Your task to perform on an android device: visit the assistant section in the google photos Image 0: 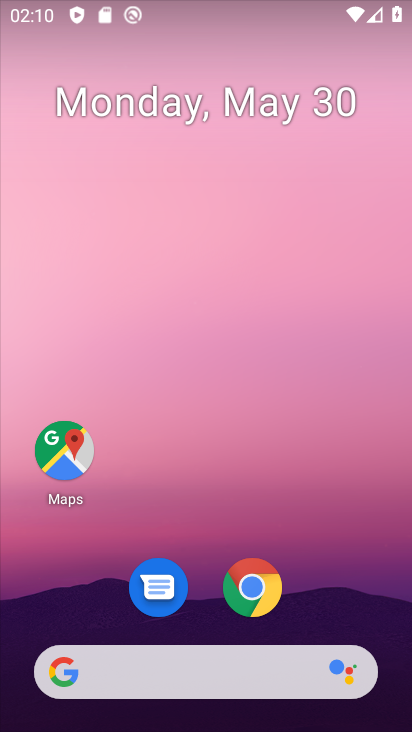
Step 0: drag from (144, 724) to (293, 36)
Your task to perform on an android device: visit the assistant section in the google photos Image 1: 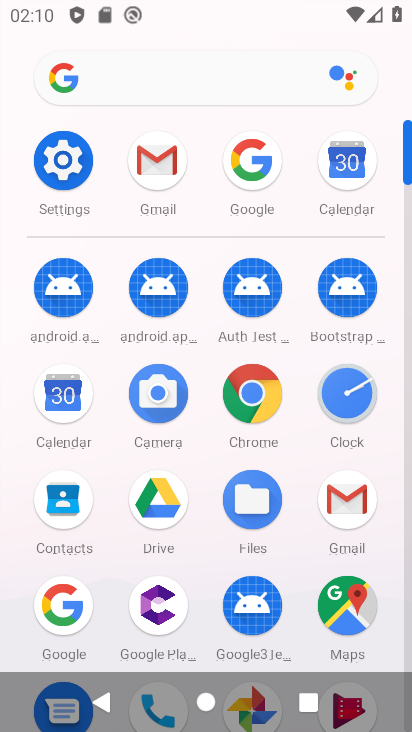
Step 1: drag from (229, 413) to (224, 75)
Your task to perform on an android device: visit the assistant section in the google photos Image 2: 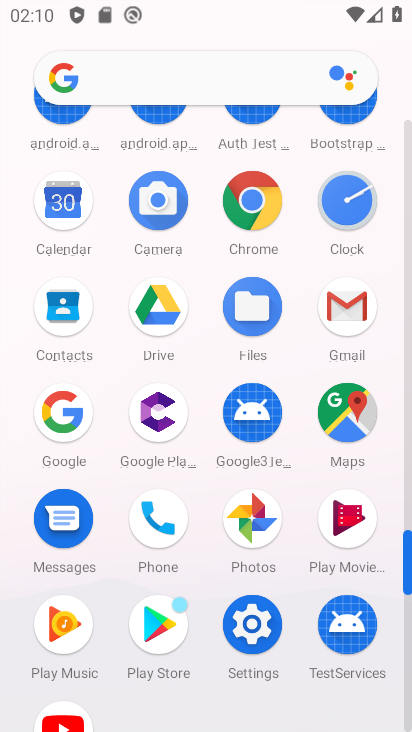
Step 2: click (260, 510)
Your task to perform on an android device: visit the assistant section in the google photos Image 3: 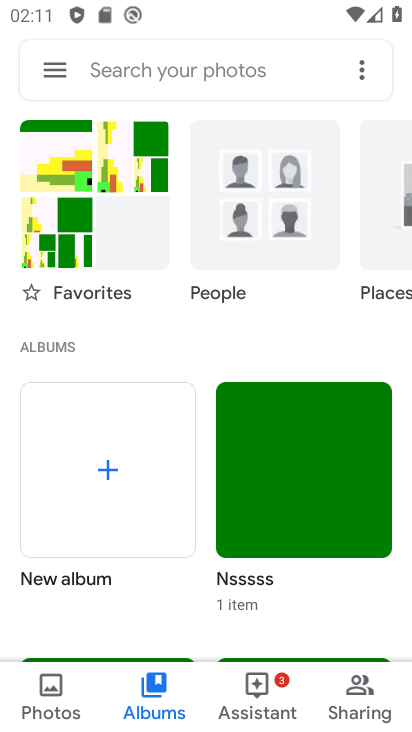
Step 3: click (259, 697)
Your task to perform on an android device: visit the assistant section in the google photos Image 4: 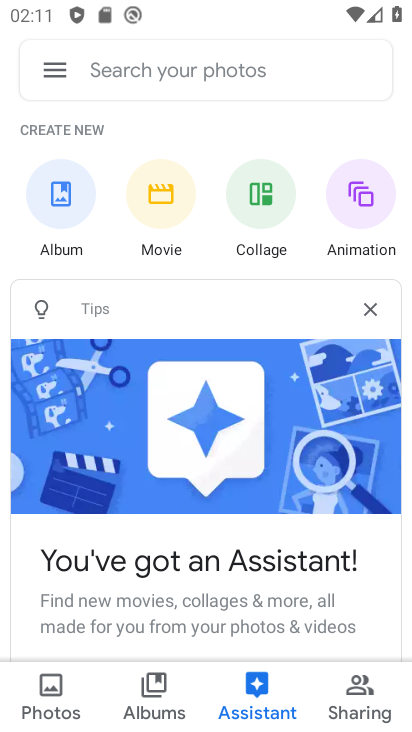
Step 4: task complete